Your task to perform on an android device: star an email in the gmail app Image 0: 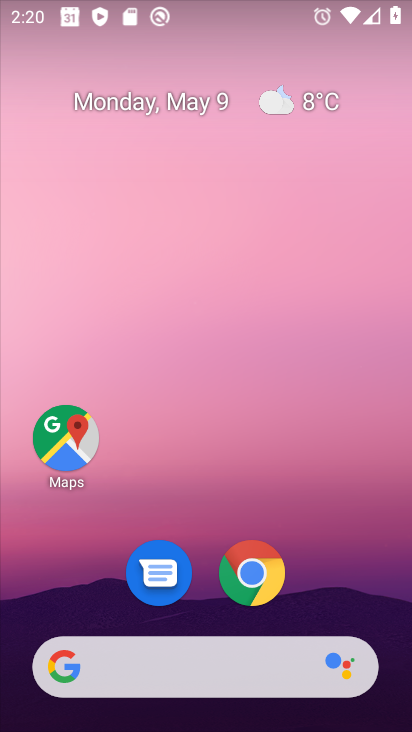
Step 0: drag from (240, 667) to (347, 309)
Your task to perform on an android device: star an email in the gmail app Image 1: 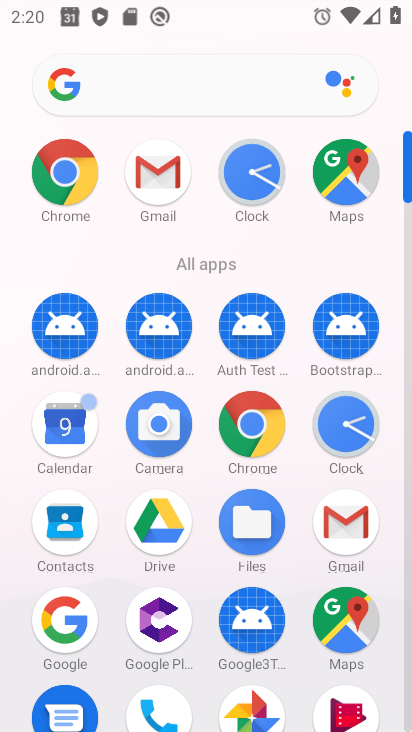
Step 1: click (149, 180)
Your task to perform on an android device: star an email in the gmail app Image 2: 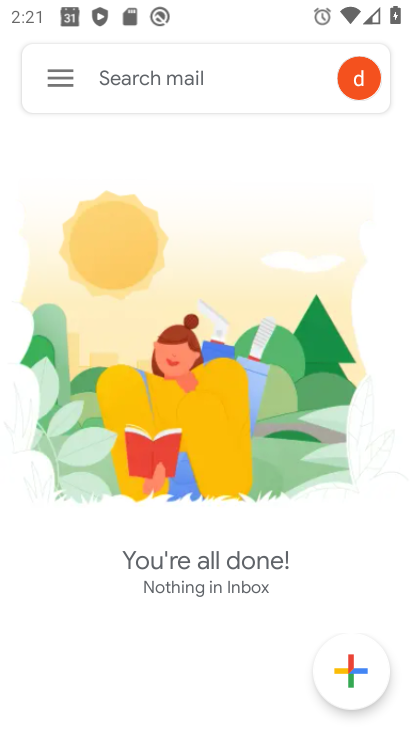
Step 2: task complete